Your task to perform on an android device: turn pop-ups on in chrome Image 0: 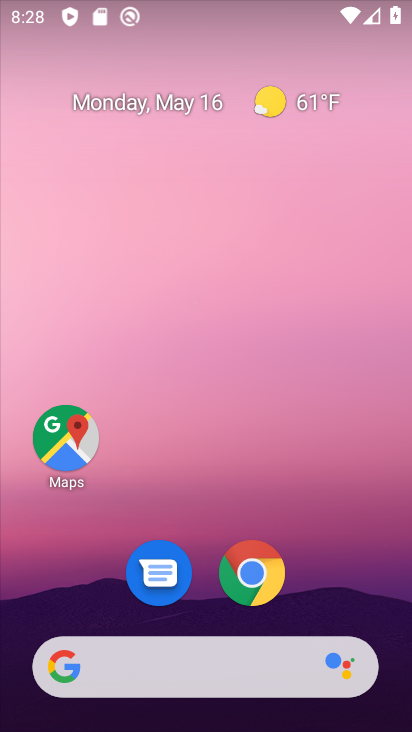
Step 0: click (251, 574)
Your task to perform on an android device: turn pop-ups on in chrome Image 1: 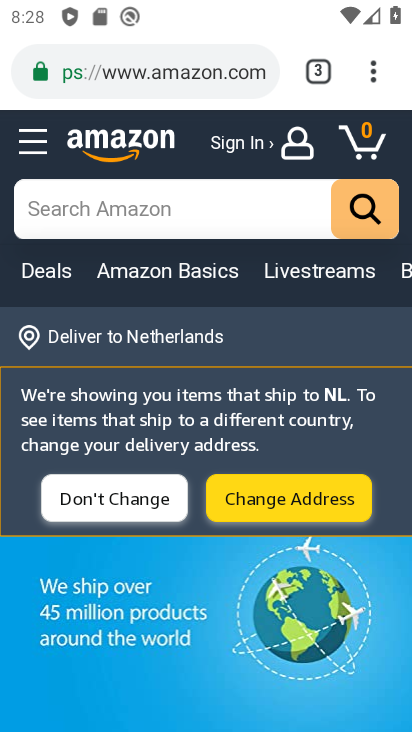
Step 1: click (376, 80)
Your task to perform on an android device: turn pop-ups on in chrome Image 2: 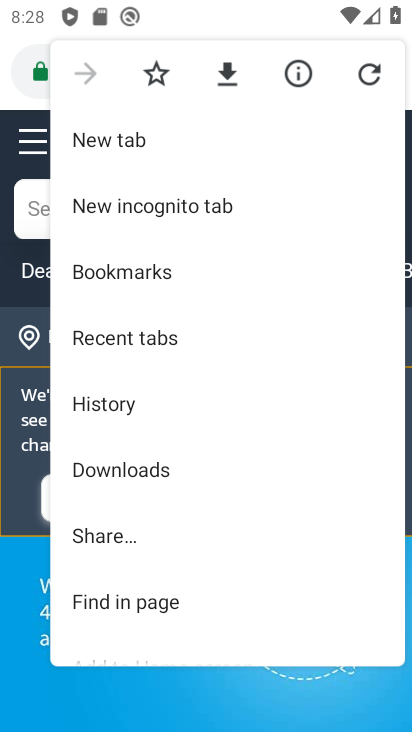
Step 2: drag from (154, 611) to (163, 172)
Your task to perform on an android device: turn pop-ups on in chrome Image 3: 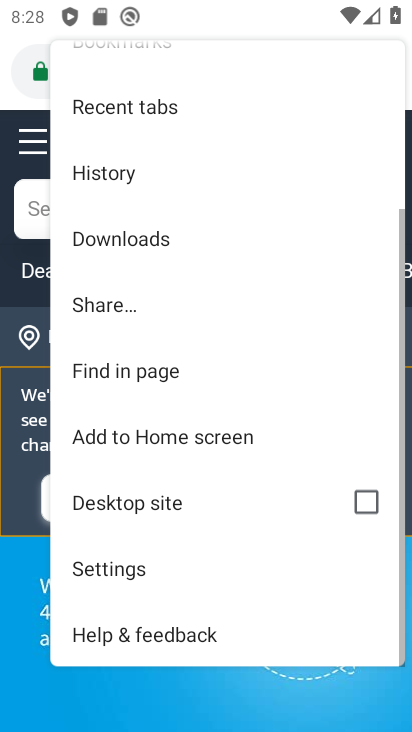
Step 3: click (122, 564)
Your task to perform on an android device: turn pop-ups on in chrome Image 4: 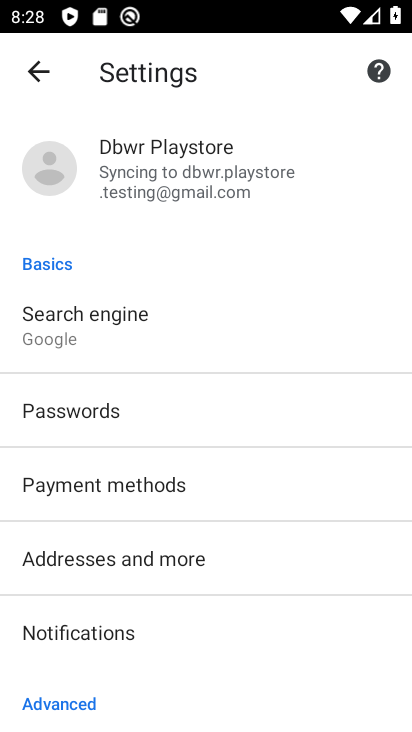
Step 4: drag from (99, 641) to (103, 154)
Your task to perform on an android device: turn pop-ups on in chrome Image 5: 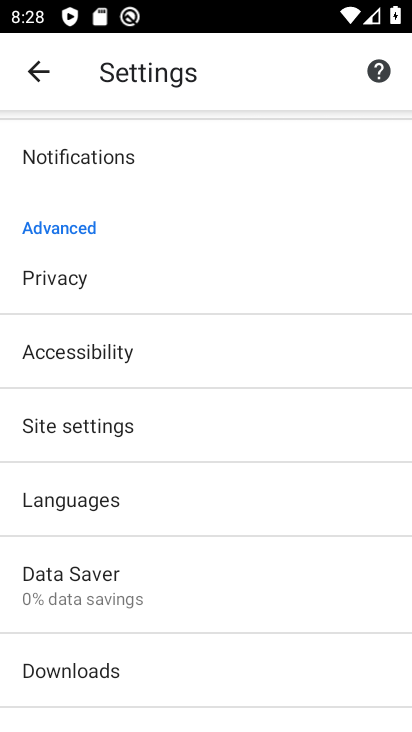
Step 5: click (74, 426)
Your task to perform on an android device: turn pop-ups on in chrome Image 6: 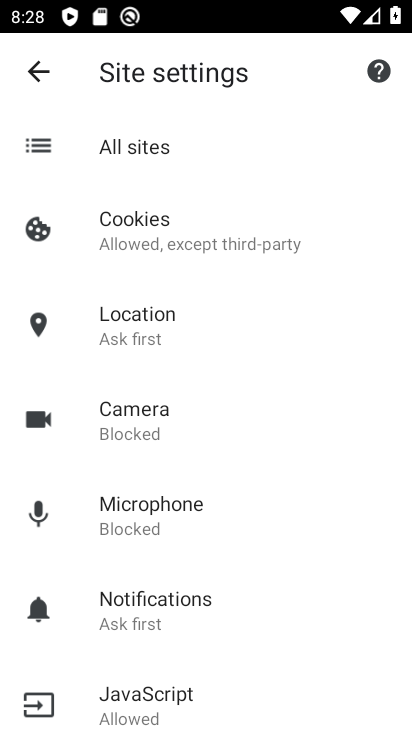
Step 6: drag from (206, 625) to (215, 166)
Your task to perform on an android device: turn pop-ups on in chrome Image 7: 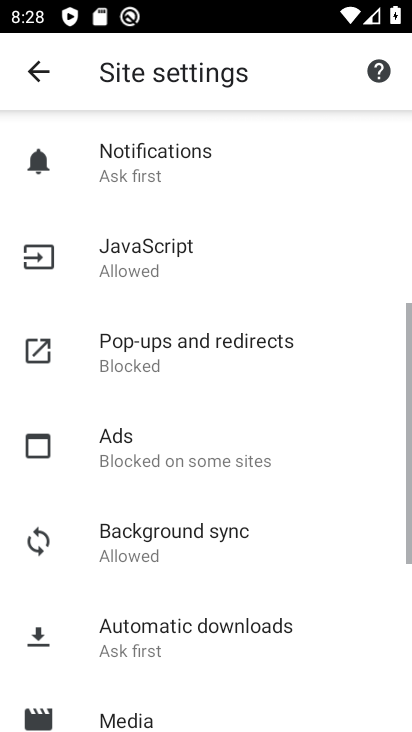
Step 7: click (181, 339)
Your task to perform on an android device: turn pop-ups on in chrome Image 8: 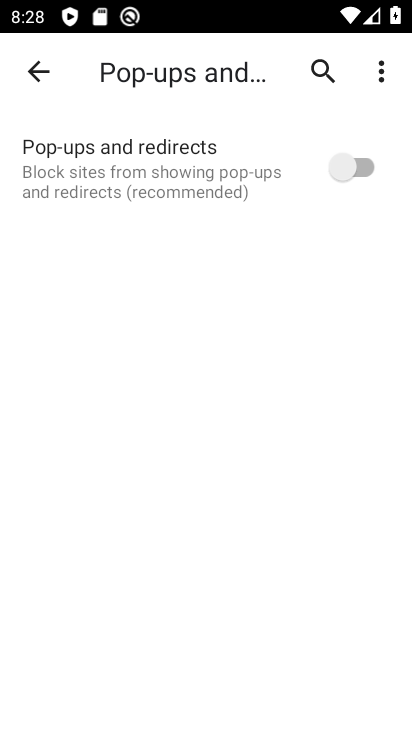
Step 8: click (362, 162)
Your task to perform on an android device: turn pop-ups on in chrome Image 9: 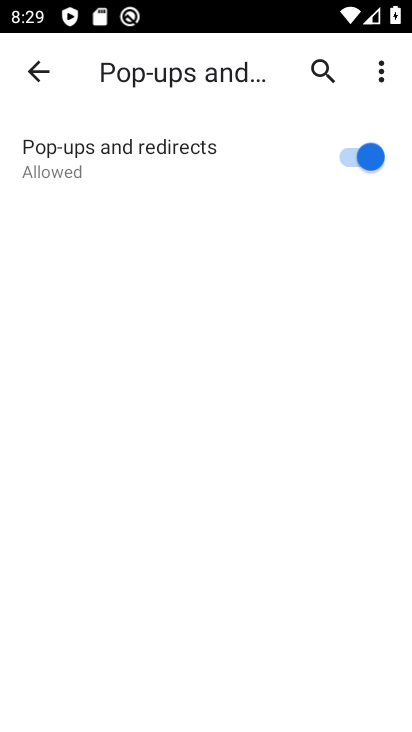
Step 9: task complete